Your task to perform on an android device: Show me productivity apps on the Play Store Image 0: 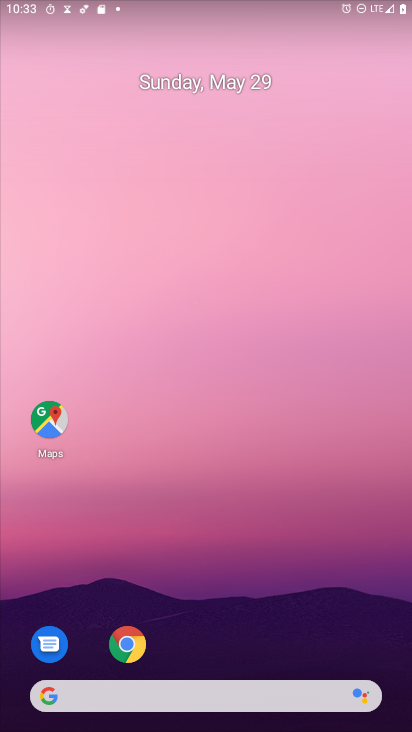
Step 0: drag from (131, 726) to (215, 141)
Your task to perform on an android device: Show me productivity apps on the Play Store Image 1: 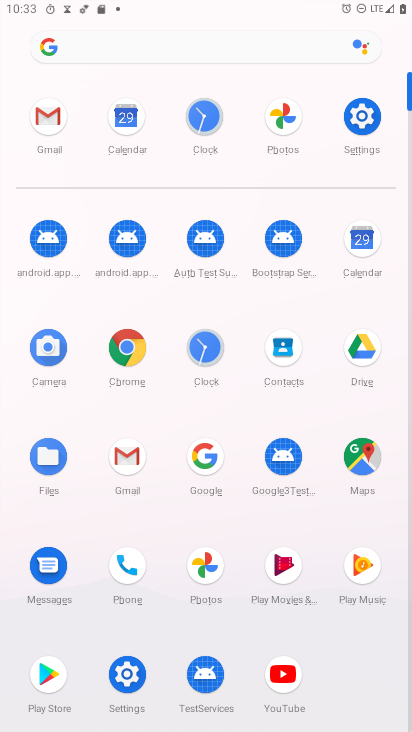
Step 1: click (44, 678)
Your task to perform on an android device: Show me productivity apps on the Play Store Image 2: 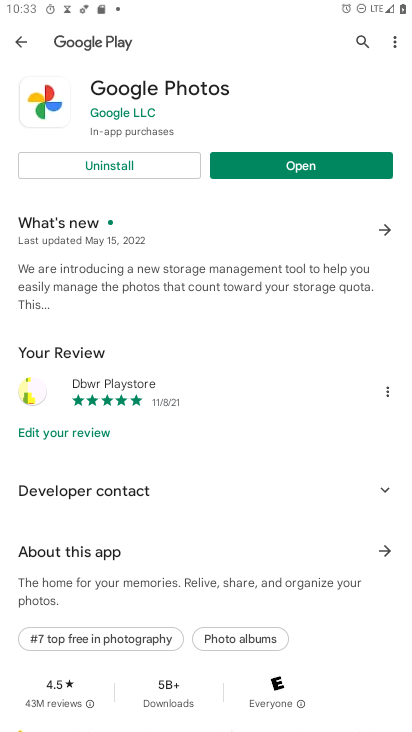
Step 2: click (28, 44)
Your task to perform on an android device: Show me productivity apps on the Play Store Image 3: 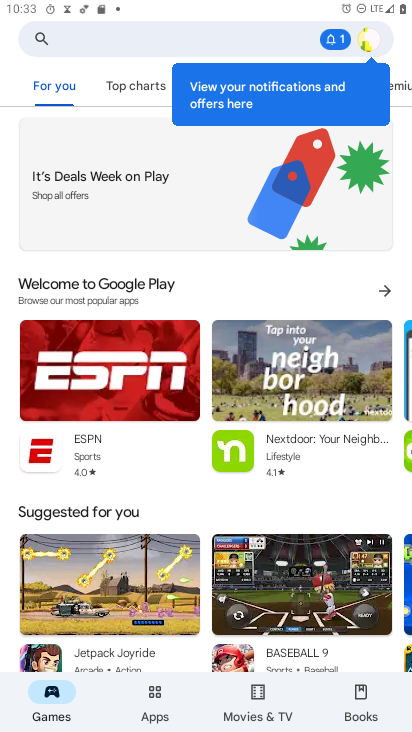
Step 3: click (146, 708)
Your task to perform on an android device: Show me productivity apps on the Play Store Image 4: 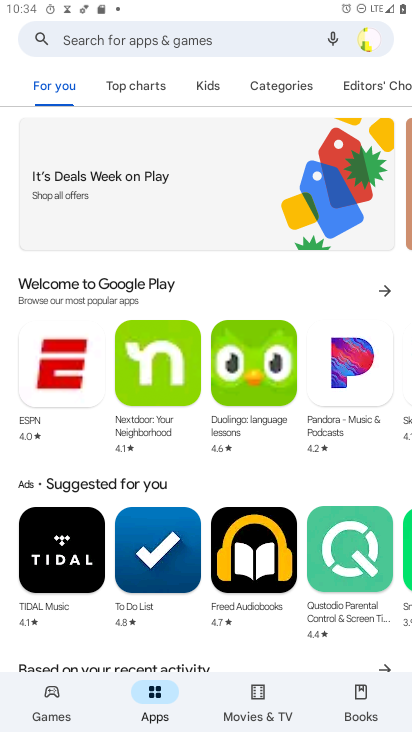
Step 4: click (282, 94)
Your task to perform on an android device: Show me productivity apps on the Play Store Image 5: 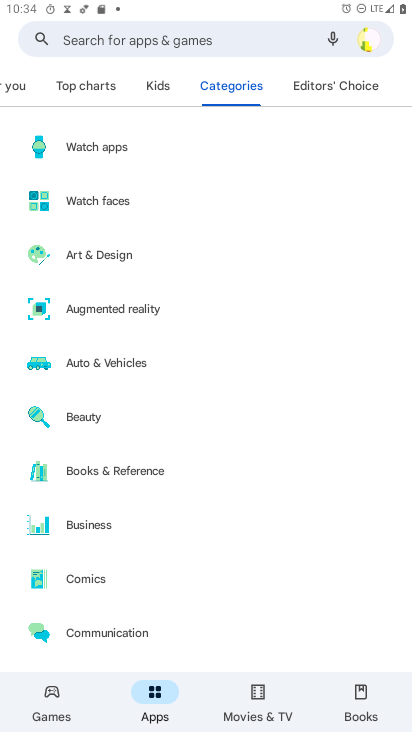
Step 5: drag from (288, 619) to (265, 140)
Your task to perform on an android device: Show me productivity apps on the Play Store Image 6: 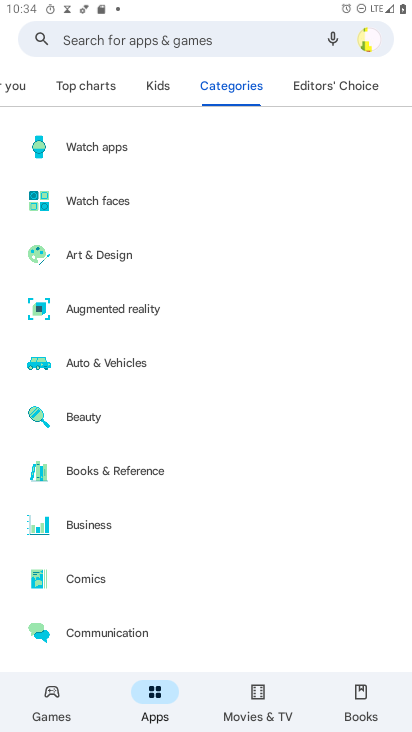
Step 6: drag from (236, 645) to (199, 155)
Your task to perform on an android device: Show me productivity apps on the Play Store Image 7: 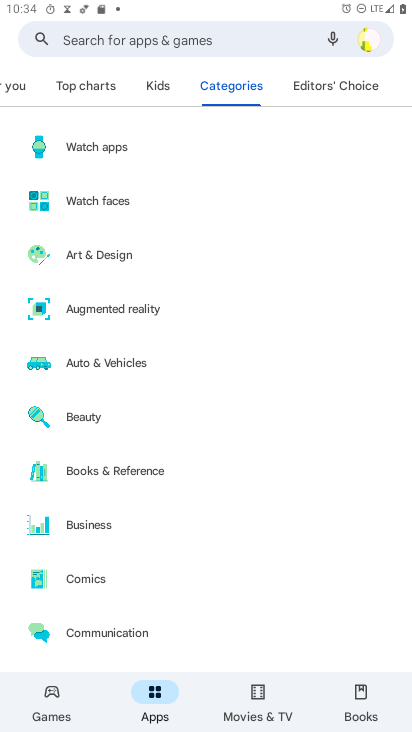
Step 7: drag from (259, 653) to (263, 163)
Your task to perform on an android device: Show me productivity apps on the Play Store Image 8: 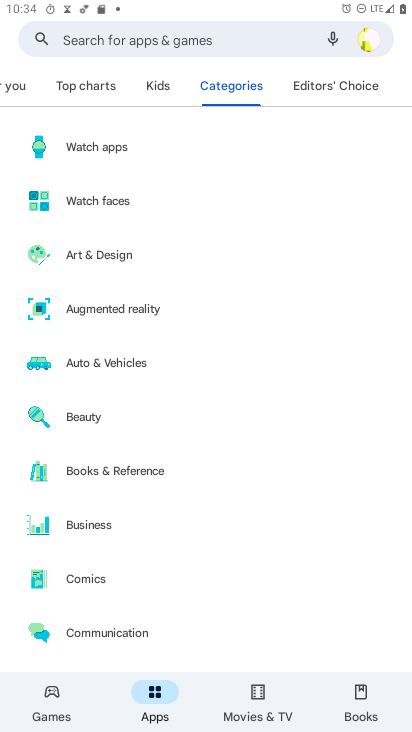
Step 8: drag from (34, 643) to (43, 127)
Your task to perform on an android device: Show me productivity apps on the Play Store Image 9: 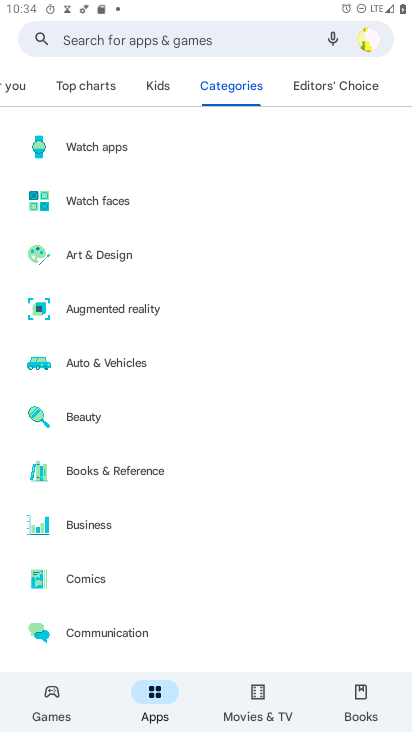
Step 9: drag from (32, 636) to (38, 23)
Your task to perform on an android device: Show me productivity apps on the Play Store Image 10: 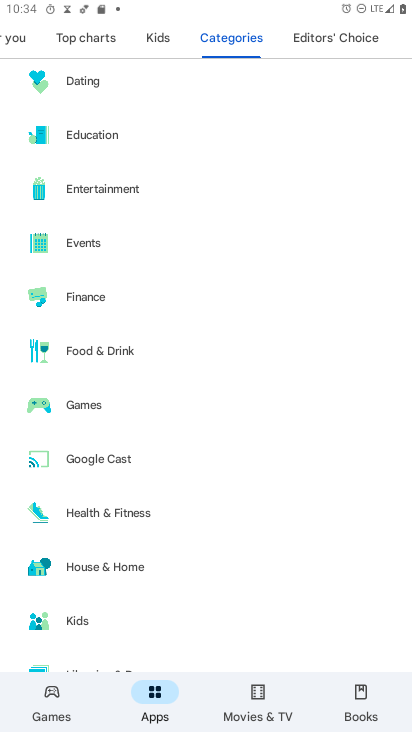
Step 10: drag from (41, 642) to (38, 85)
Your task to perform on an android device: Show me productivity apps on the Play Store Image 11: 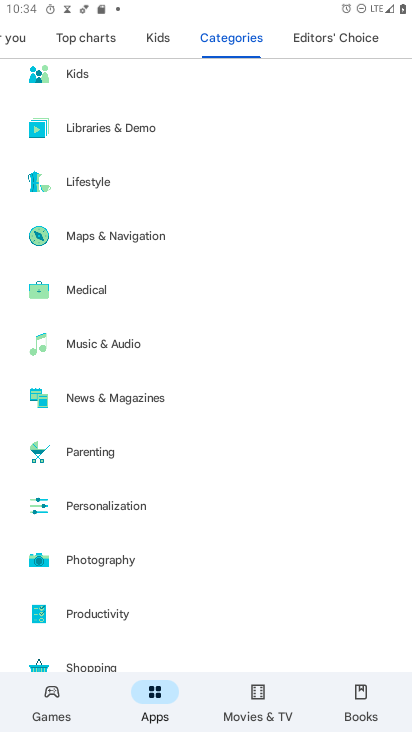
Step 11: click (102, 614)
Your task to perform on an android device: Show me productivity apps on the Play Store Image 12: 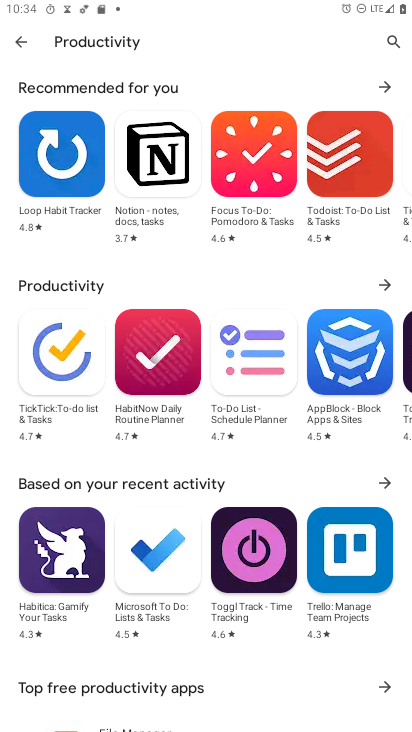
Step 12: task complete